Your task to perform on an android device: turn off airplane mode Image 0: 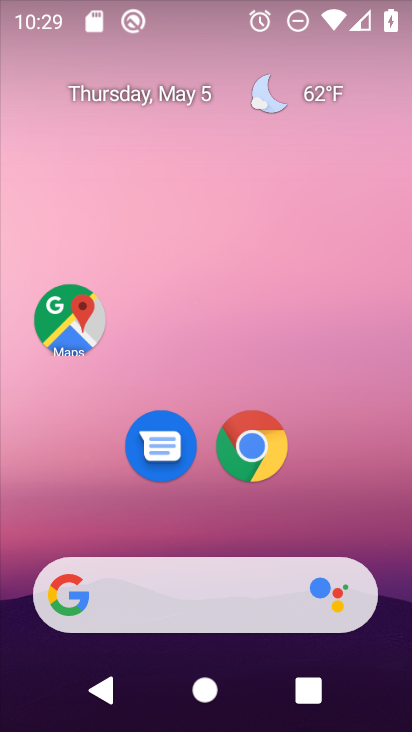
Step 0: drag from (276, 623) to (270, 64)
Your task to perform on an android device: turn off airplane mode Image 1: 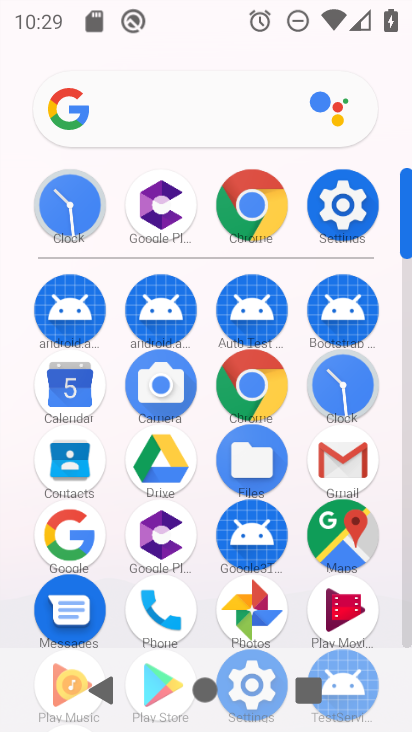
Step 1: click (359, 210)
Your task to perform on an android device: turn off airplane mode Image 2: 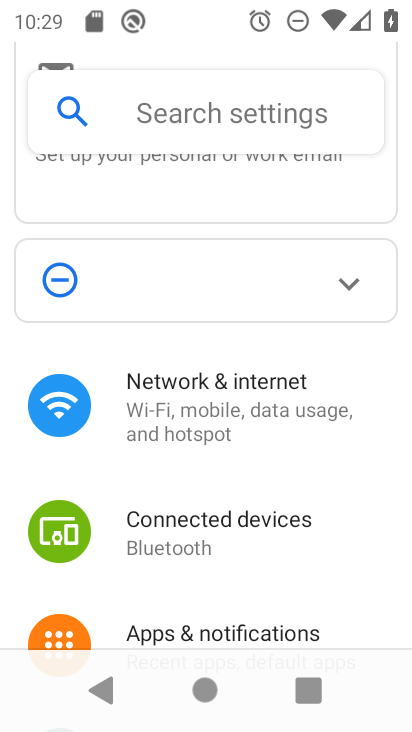
Step 2: click (230, 424)
Your task to perform on an android device: turn off airplane mode Image 3: 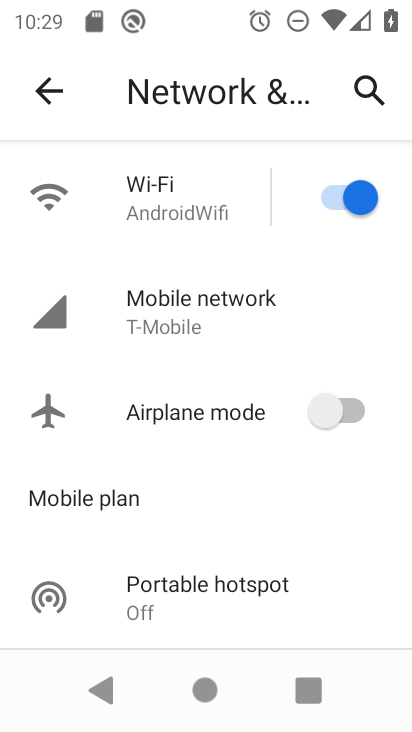
Step 3: click (222, 426)
Your task to perform on an android device: turn off airplane mode Image 4: 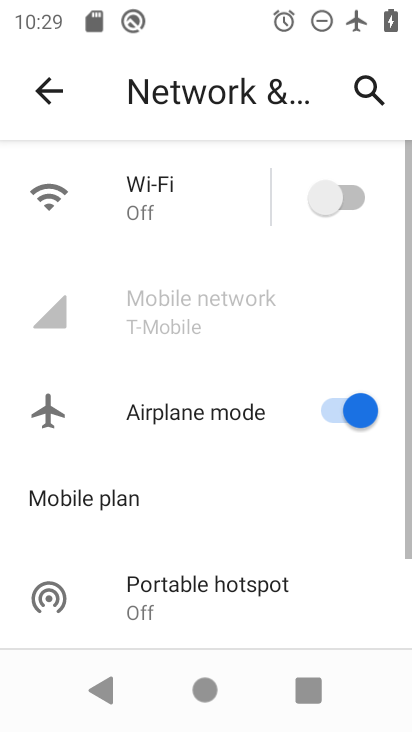
Step 4: click (222, 426)
Your task to perform on an android device: turn off airplane mode Image 5: 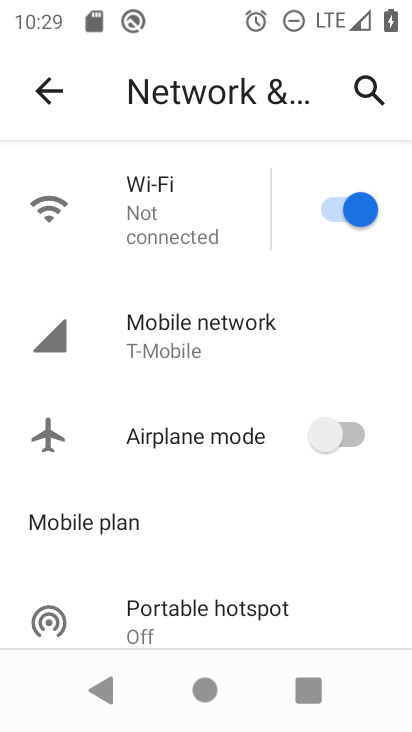
Step 5: task complete